Your task to perform on an android device: delete a single message in the gmail app Image 0: 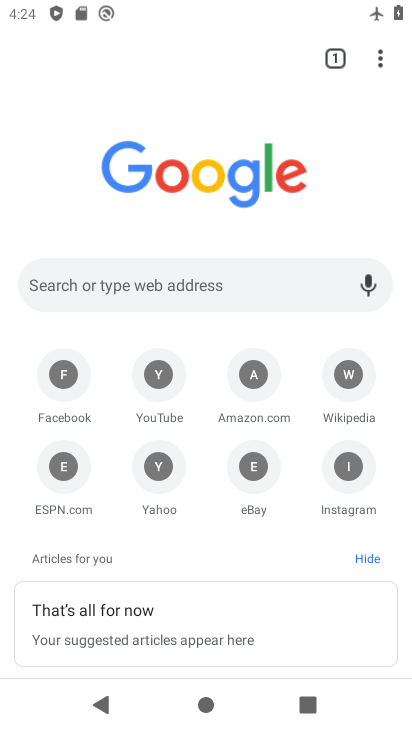
Step 0: press home button
Your task to perform on an android device: delete a single message in the gmail app Image 1: 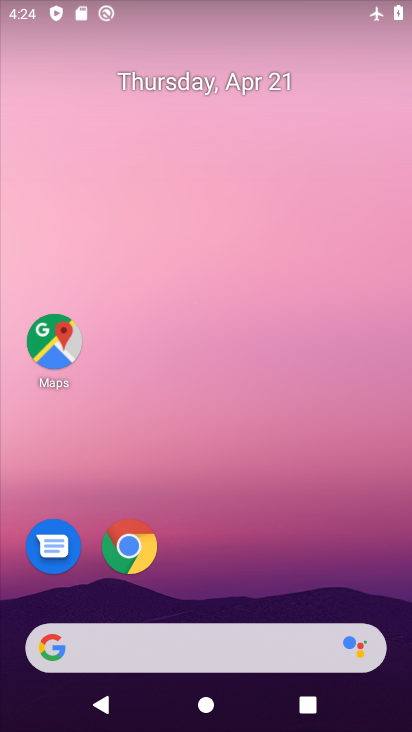
Step 1: drag from (283, 154) to (304, 27)
Your task to perform on an android device: delete a single message in the gmail app Image 2: 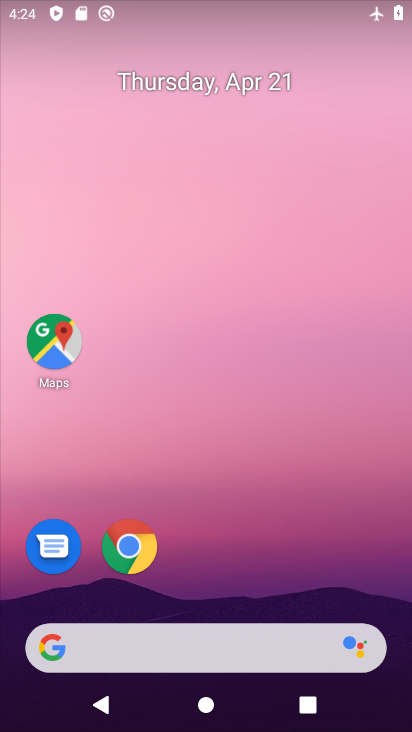
Step 2: drag from (232, 324) to (254, 17)
Your task to perform on an android device: delete a single message in the gmail app Image 3: 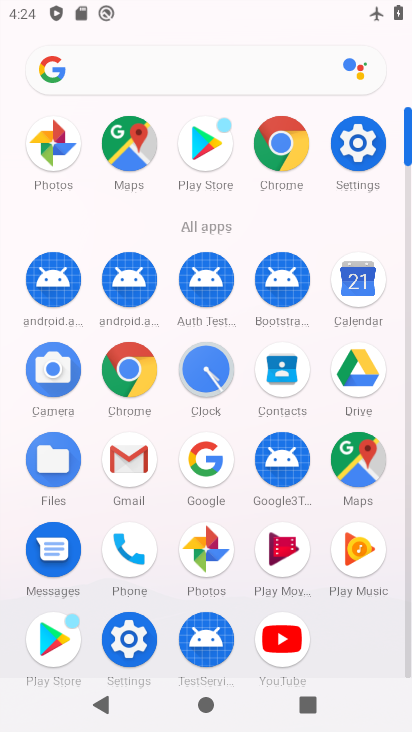
Step 3: click (114, 455)
Your task to perform on an android device: delete a single message in the gmail app Image 4: 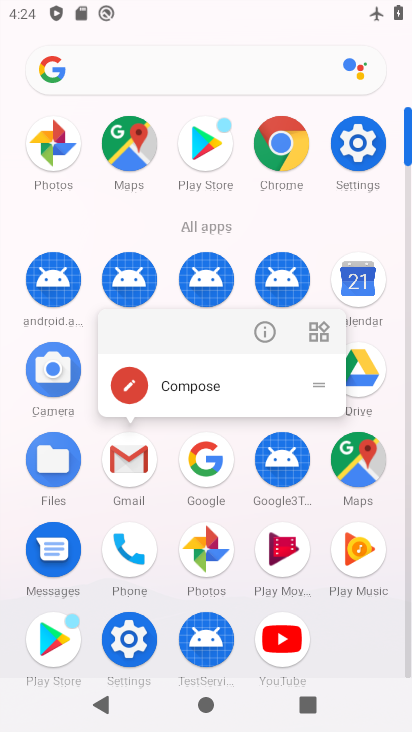
Step 4: click (132, 442)
Your task to perform on an android device: delete a single message in the gmail app Image 5: 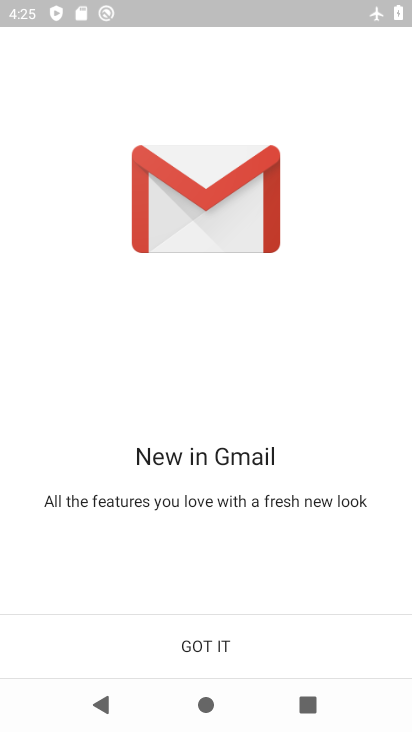
Step 5: click (235, 645)
Your task to perform on an android device: delete a single message in the gmail app Image 6: 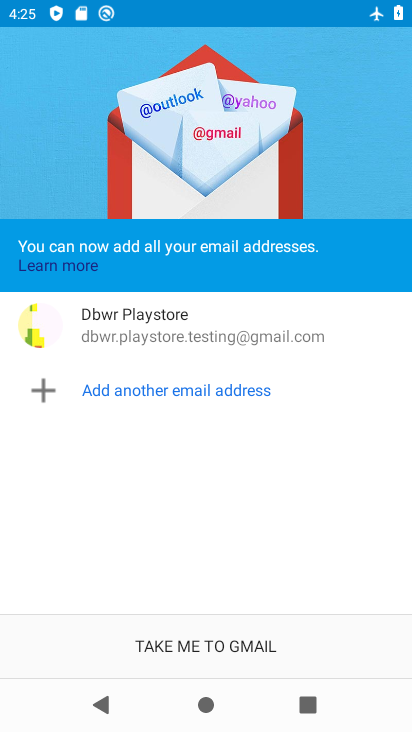
Step 6: click (180, 642)
Your task to perform on an android device: delete a single message in the gmail app Image 7: 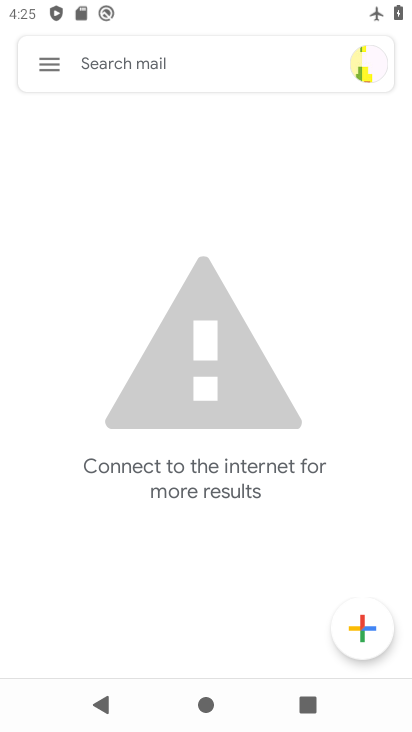
Step 7: task complete